Your task to perform on an android device: Empty the shopping cart on target.com. Image 0: 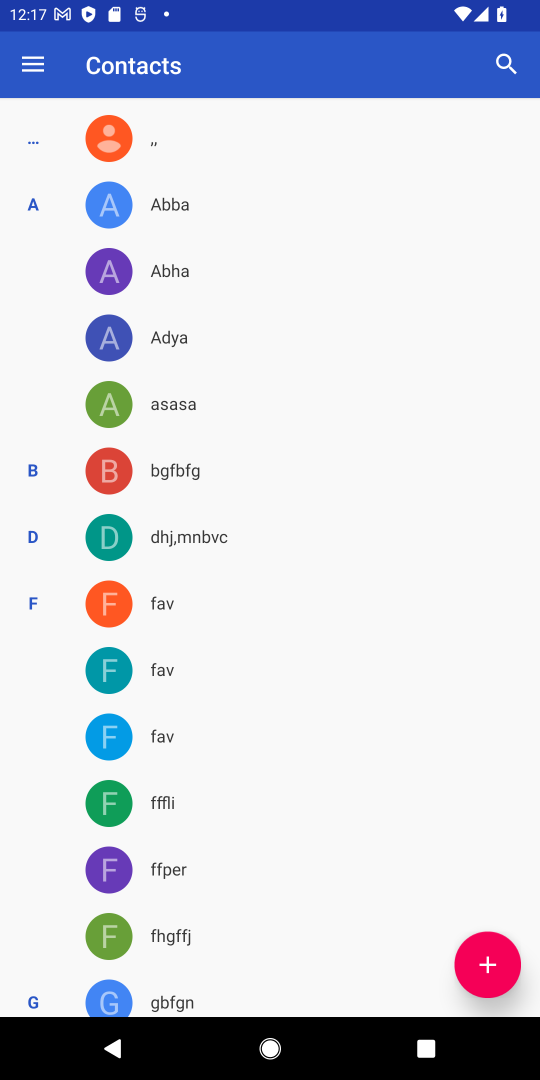
Step 0: press home button
Your task to perform on an android device: Empty the shopping cart on target.com. Image 1: 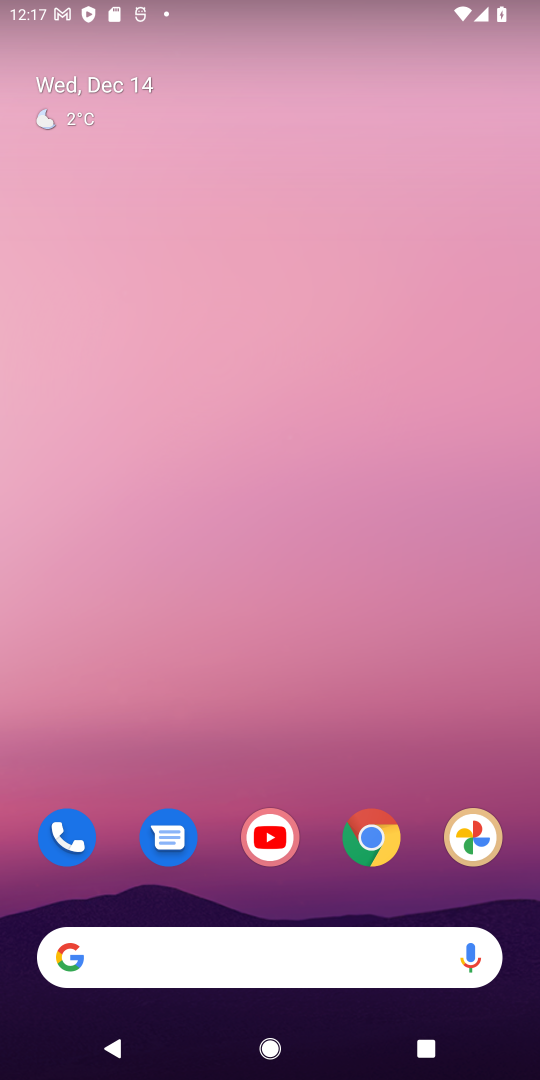
Step 1: click (246, 960)
Your task to perform on an android device: Empty the shopping cart on target.com. Image 2: 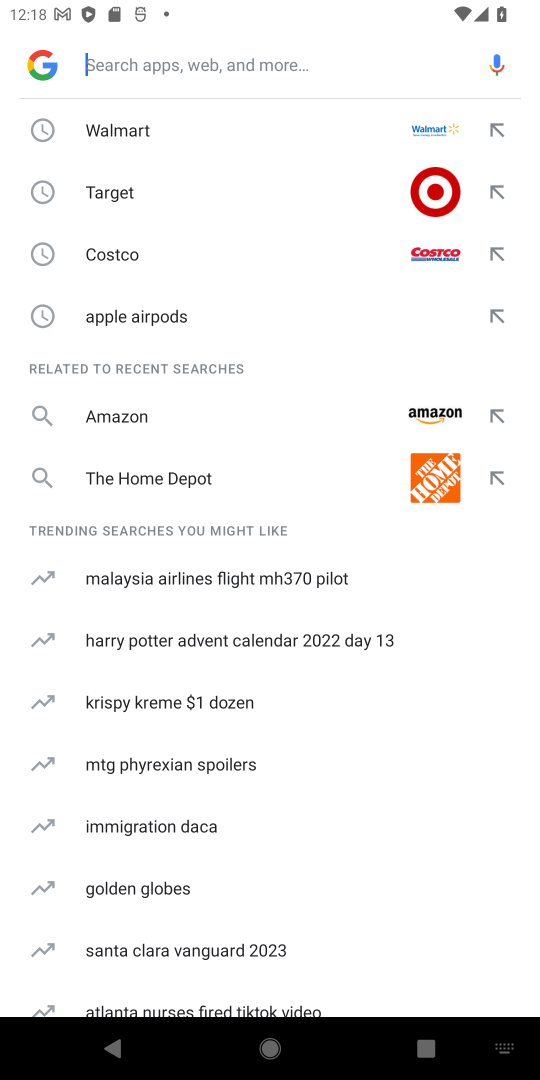
Step 2: type "target"
Your task to perform on an android device: Empty the shopping cart on target.com. Image 3: 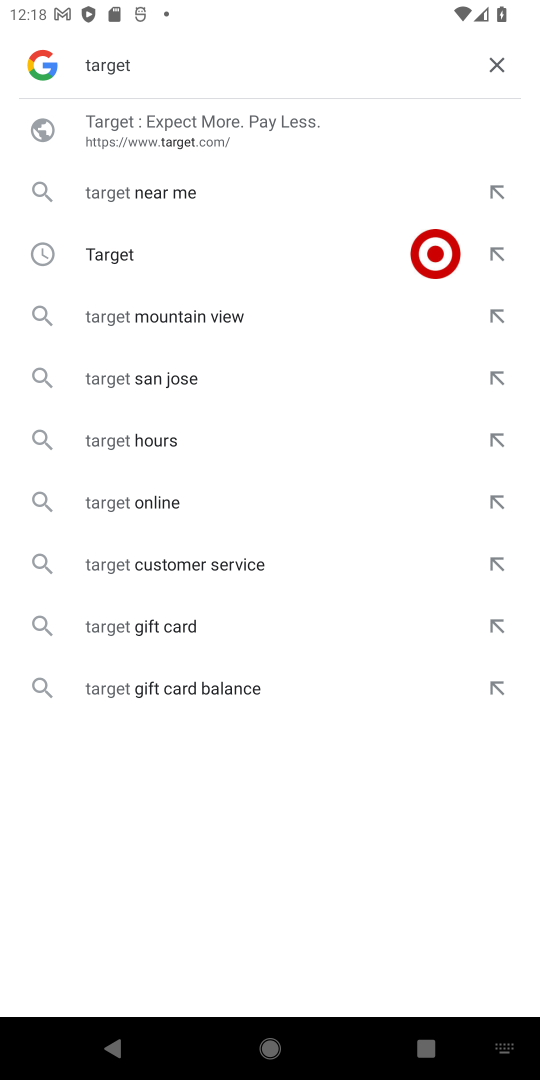
Step 3: click (182, 140)
Your task to perform on an android device: Empty the shopping cart on target.com. Image 4: 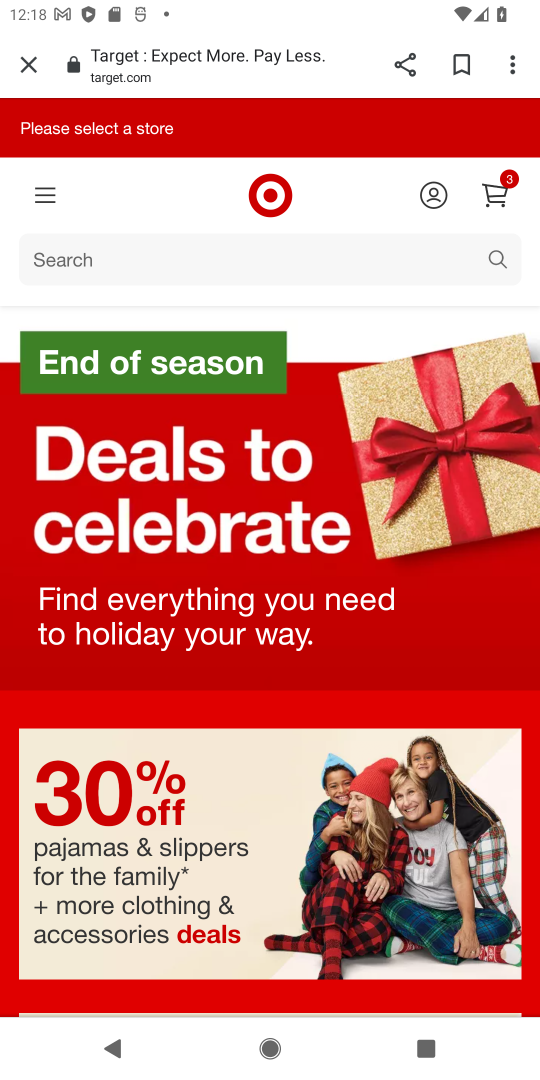
Step 4: click (482, 187)
Your task to perform on an android device: Empty the shopping cart on target.com. Image 5: 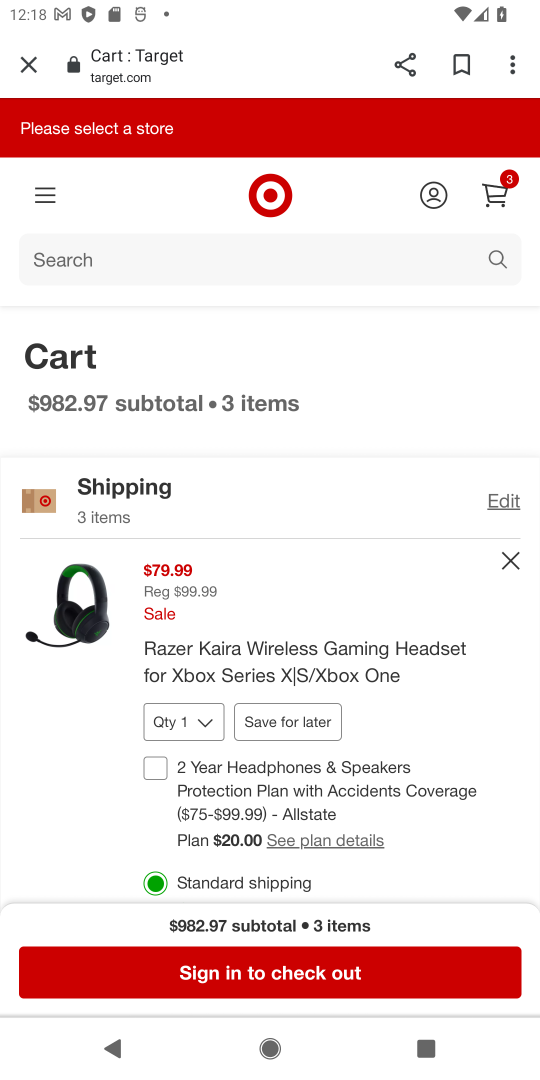
Step 5: click (503, 565)
Your task to perform on an android device: Empty the shopping cart on target.com. Image 6: 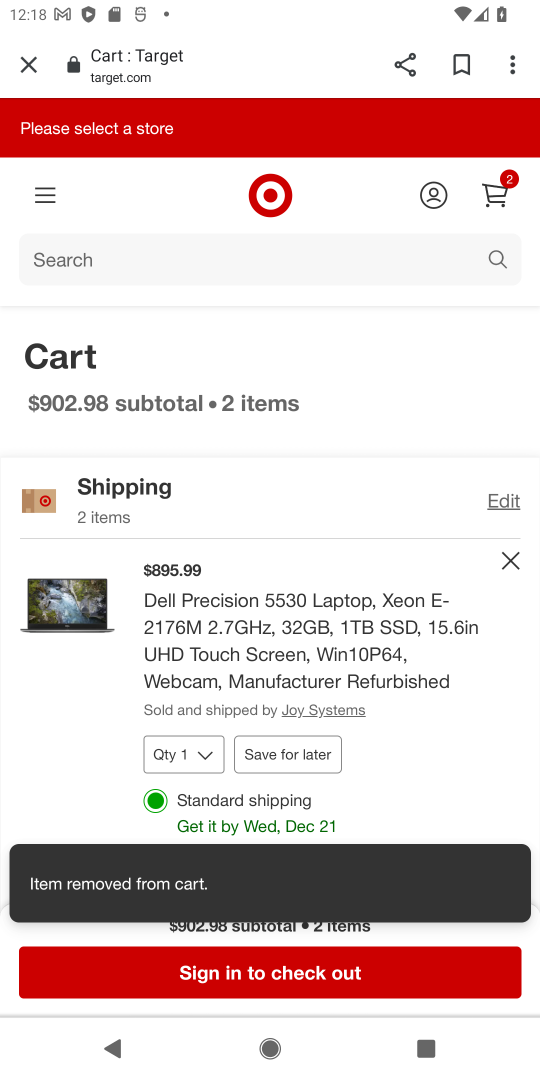
Step 6: click (503, 565)
Your task to perform on an android device: Empty the shopping cart on target.com. Image 7: 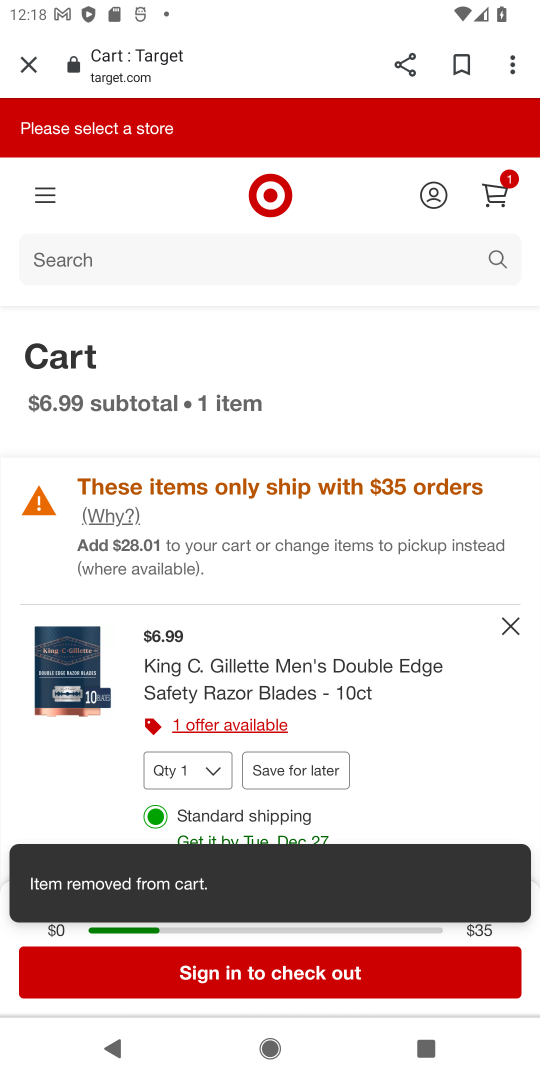
Step 7: click (503, 565)
Your task to perform on an android device: Empty the shopping cart on target.com. Image 8: 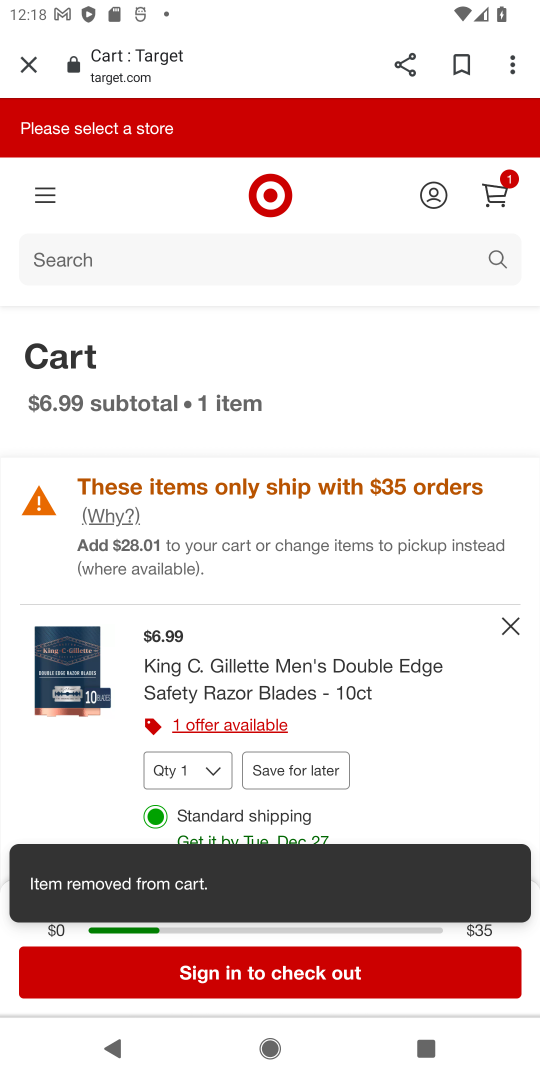
Step 8: click (500, 622)
Your task to perform on an android device: Empty the shopping cart on target.com. Image 9: 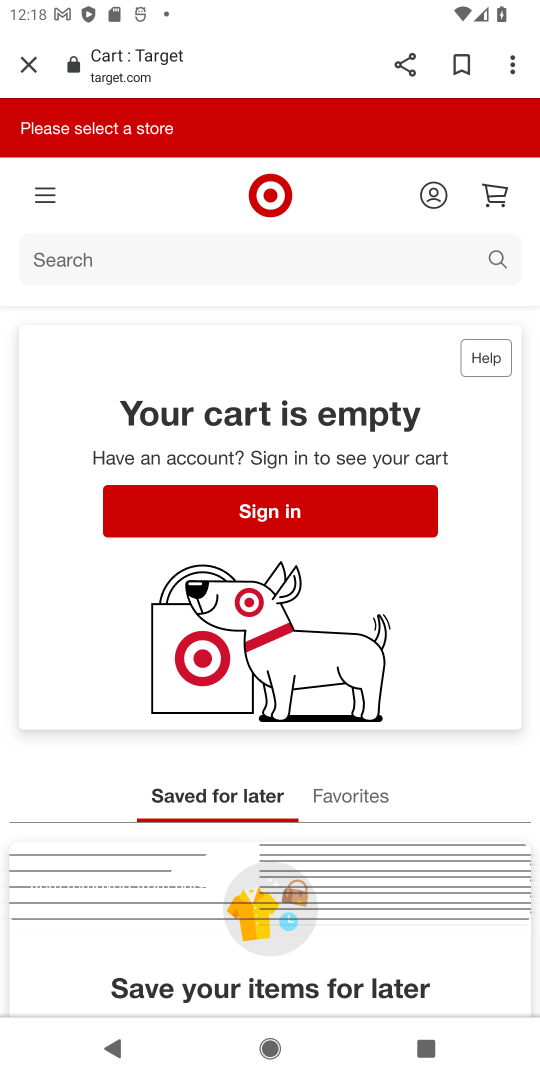
Step 9: task complete